Your task to perform on an android device: Go to Maps Image 0: 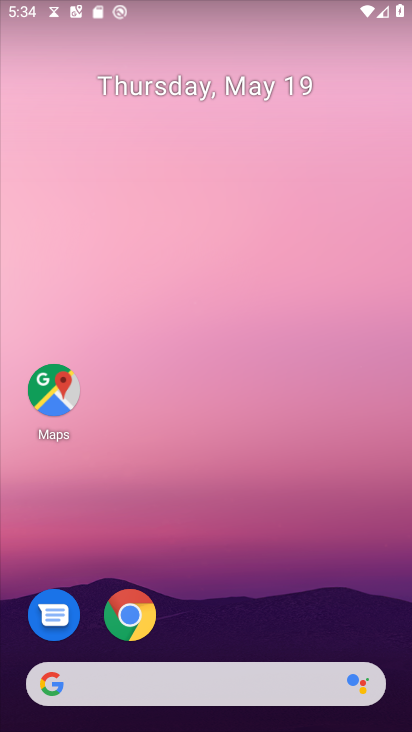
Step 0: drag from (235, 682) to (274, 97)
Your task to perform on an android device: Go to Maps Image 1: 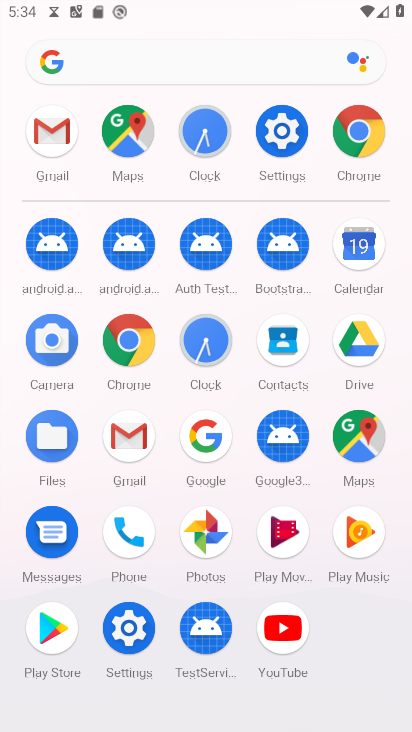
Step 1: click (365, 442)
Your task to perform on an android device: Go to Maps Image 2: 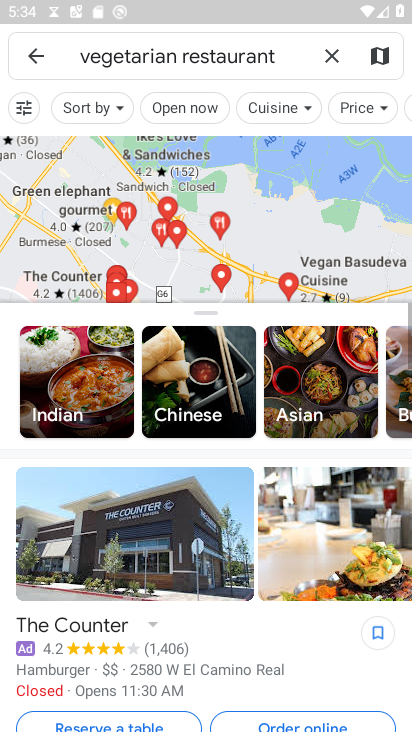
Step 2: task complete